Your task to perform on an android device: Open Google Image 0: 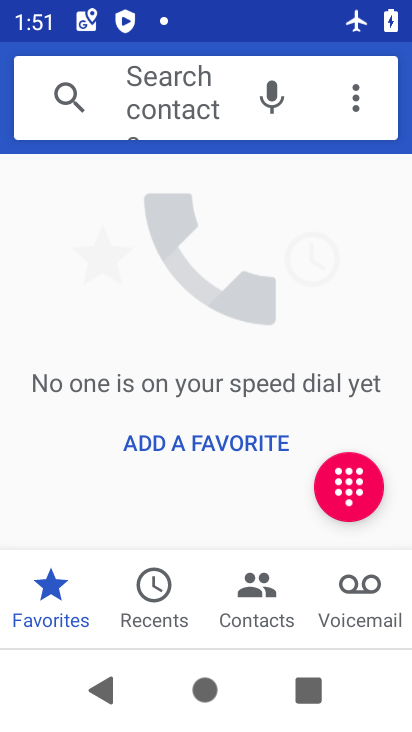
Step 0: press home button
Your task to perform on an android device: Open Google Image 1: 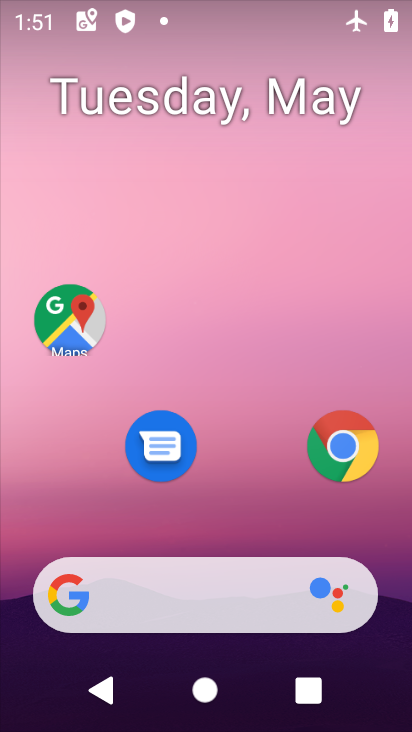
Step 1: drag from (208, 545) to (386, 41)
Your task to perform on an android device: Open Google Image 2: 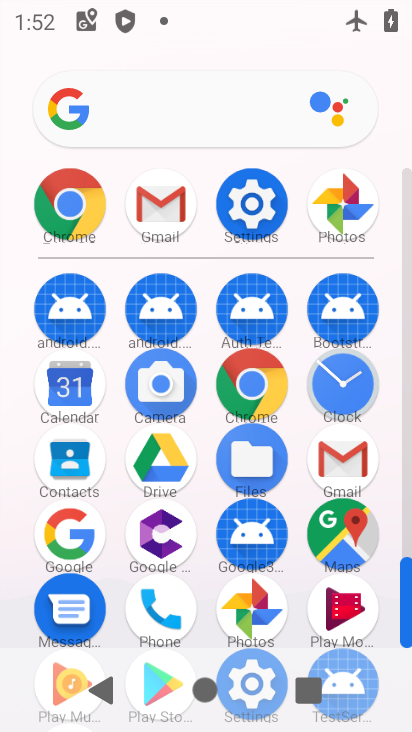
Step 2: click (88, 542)
Your task to perform on an android device: Open Google Image 3: 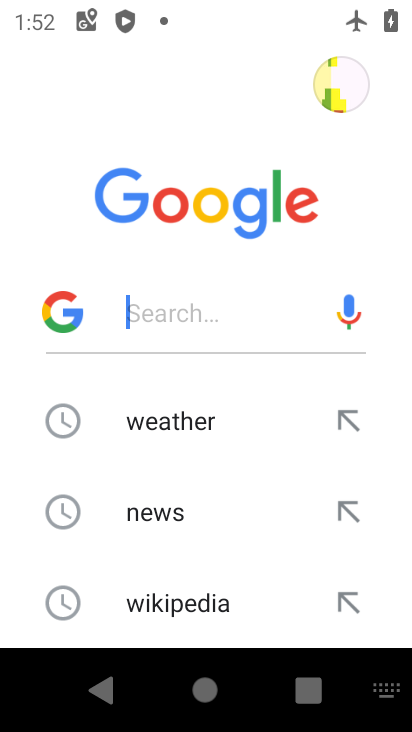
Step 3: task complete